Your task to perform on an android device: change keyboard looks Image 0: 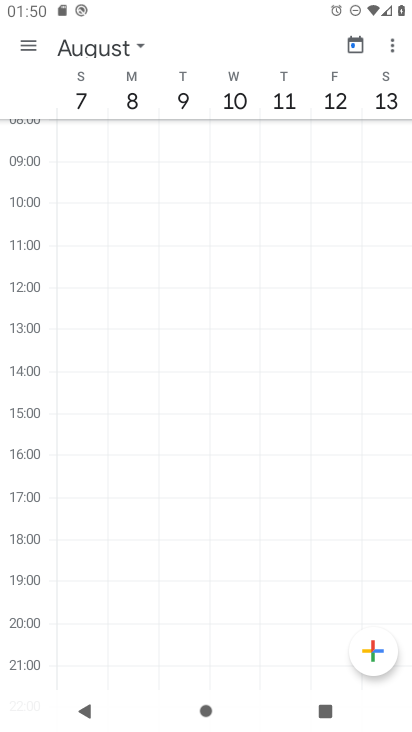
Step 0: press home button
Your task to perform on an android device: change keyboard looks Image 1: 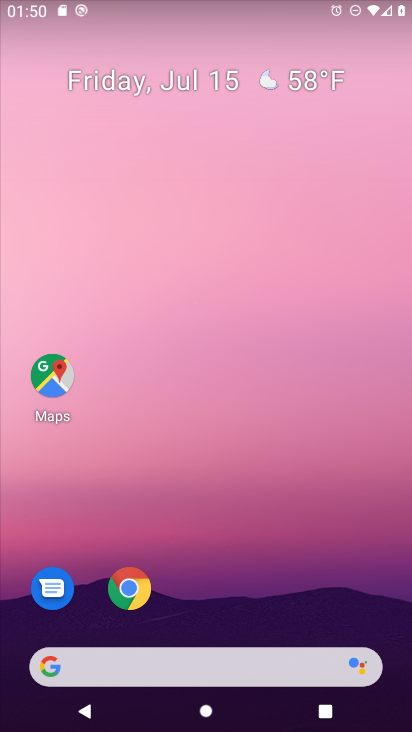
Step 1: drag from (363, 603) to (347, 172)
Your task to perform on an android device: change keyboard looks Image 2: 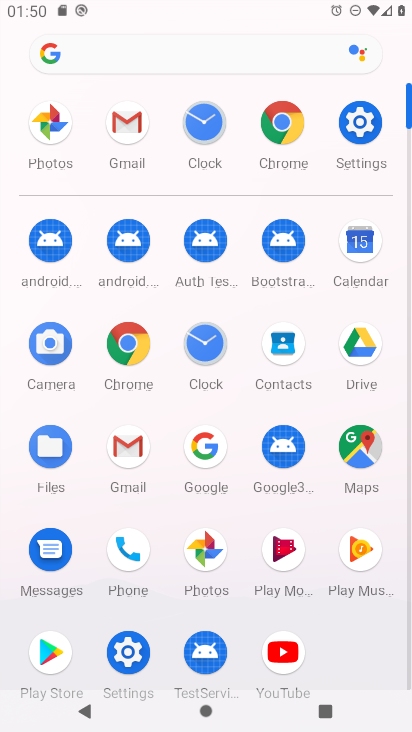
Step 2: click (125, 652)
Your task to perform on an android device: change keyboard looks Image 3: 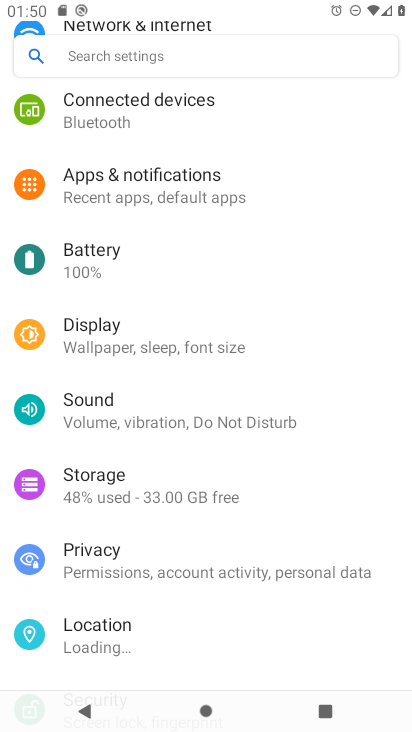
Step 3: drag from (339, 650) to (298, 149)
Your task to perform on an android device: change keyboard looks Image 4: 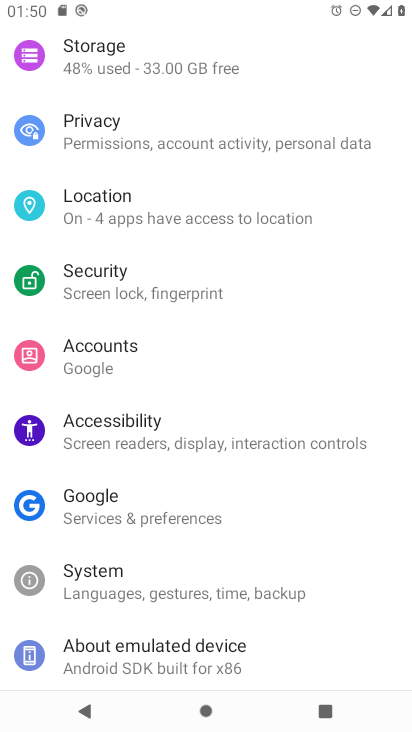
Step 4: click (85, 588)
Your task to perform on an android device: change keyboard looks Image 5: 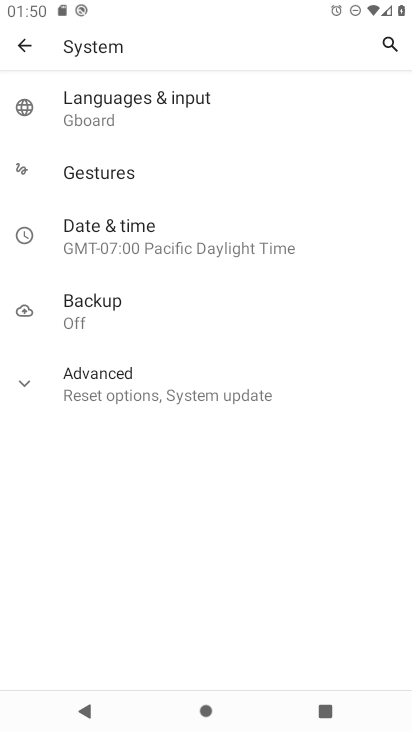
Step 5: click (100, 100)
Your task to perform on an android device: change keyboard looks Image 6: 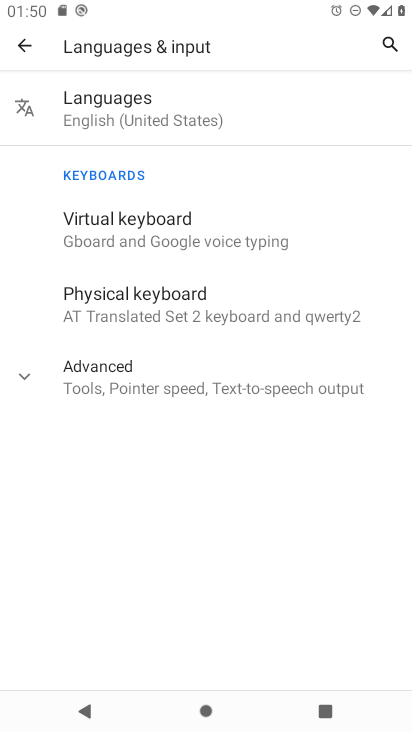
Step 6: click (119, 290)
Your task to perform on an android device: change keyboard looks Image 7: 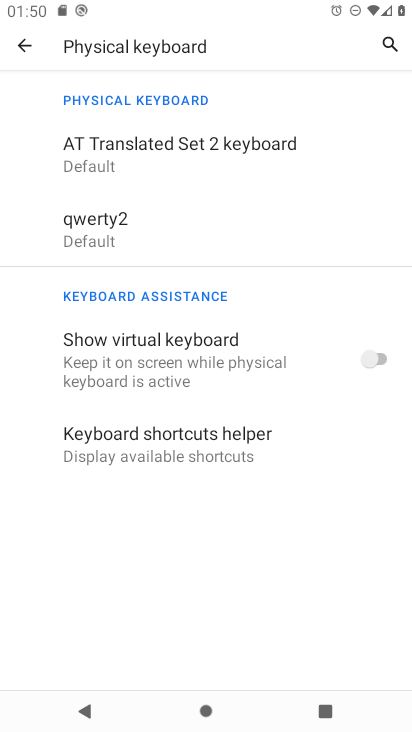
Step 7: click (82, 227)
Your task to perform on an android device: change keyboard looks Image 8: 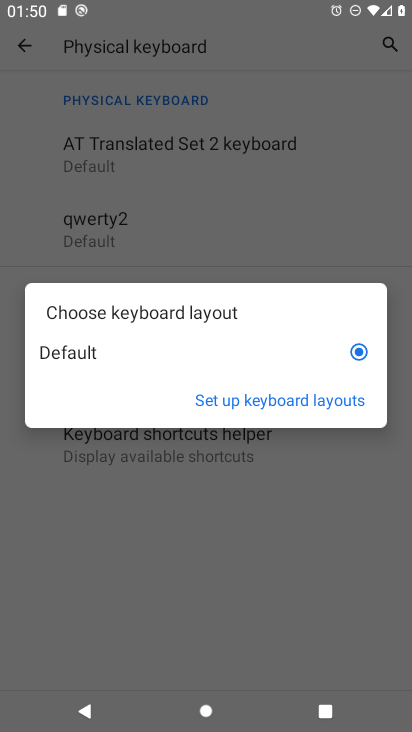
Step 8: click (263, 406)
Your task to perform on an android device: change keyboard looks Image 9: 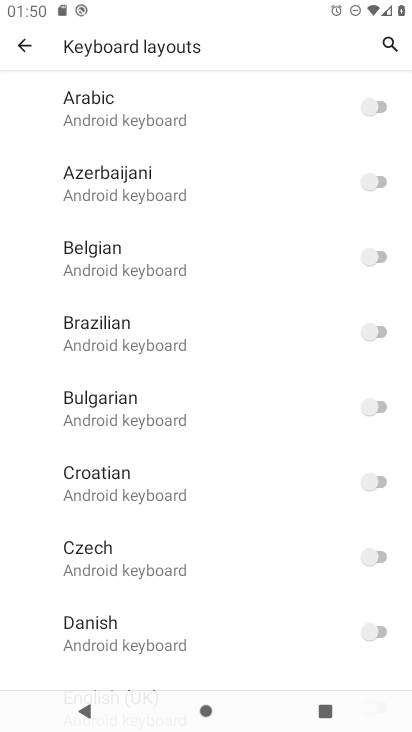
Step 9: drag from (304, 585) to (297, 171)
Your task to perform on an android device: change keyboard looks Image 10: 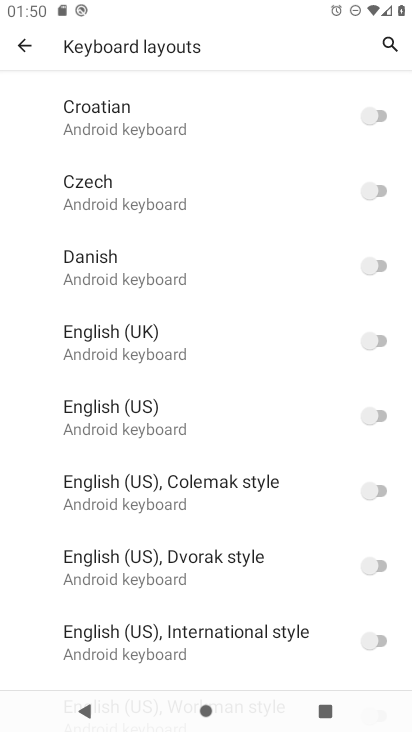
Step 10: click (378, 417)
Your task to perform on an android device: change keyboard looks Image 11: 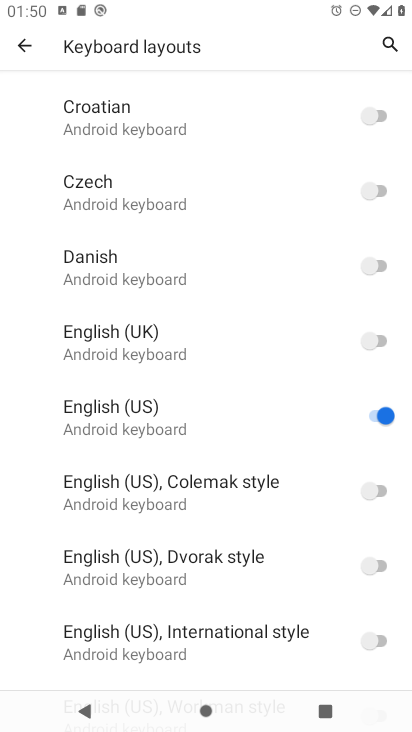
Step 11: task complete